Your task to perform on an android device: change notifications settings Image 0: 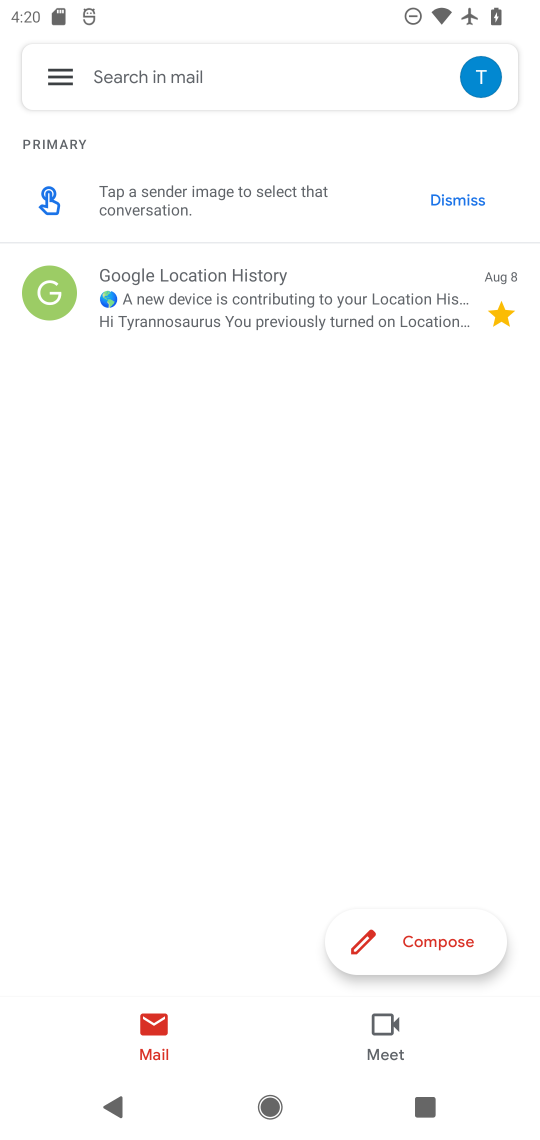
Step 0: press home button
Your task to perform on an android device: change notifications settings Image 1: 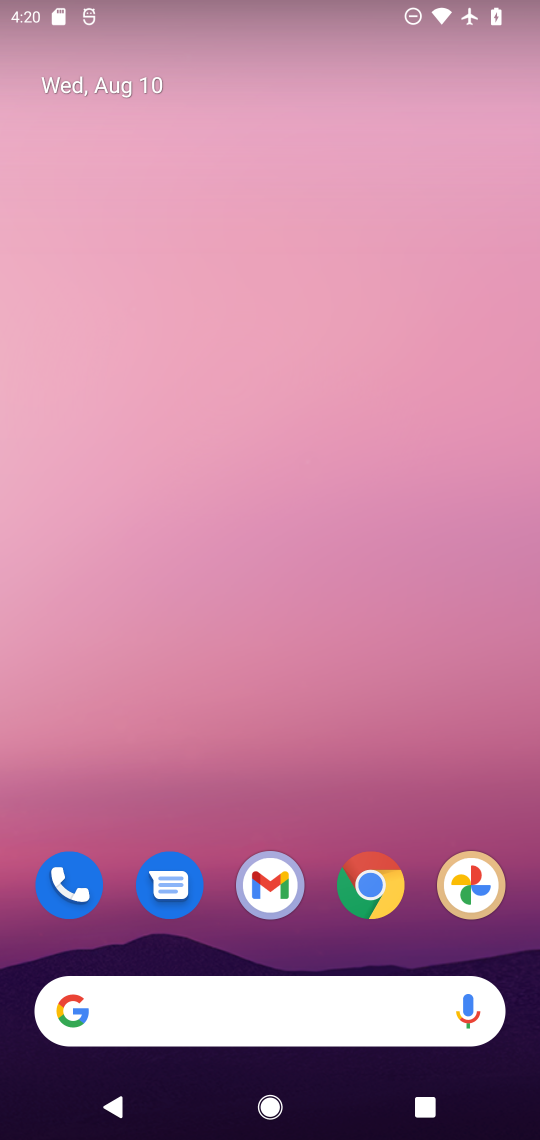
Step 1: drag from (314, 950) to (242, 225)
Your task to perform on an android device: change notifications settings Image 2: 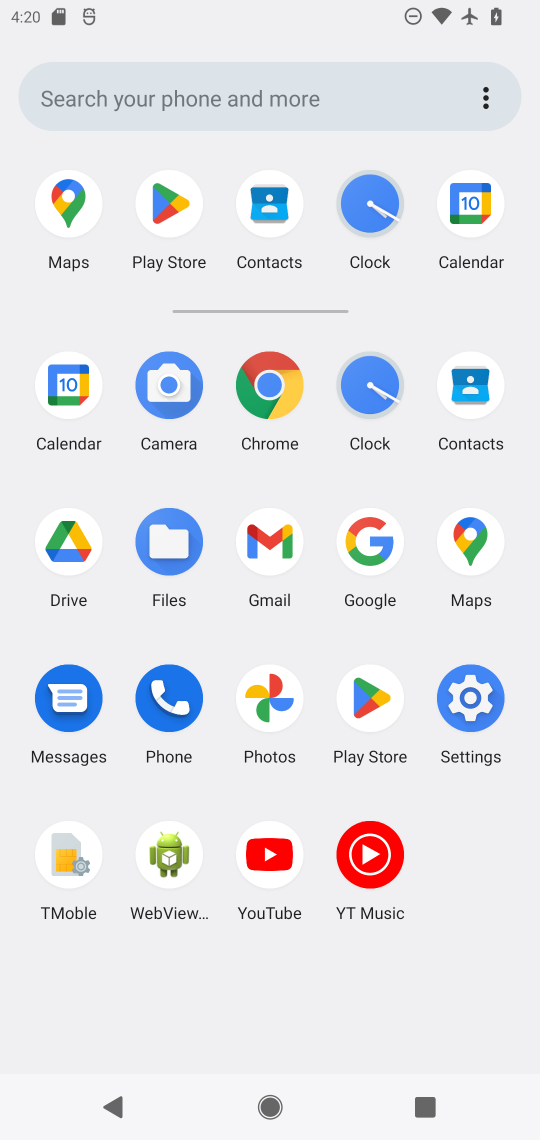
Step 2: click (471, 697)
Your task to perform on an android device: change notifications settings Image 3: 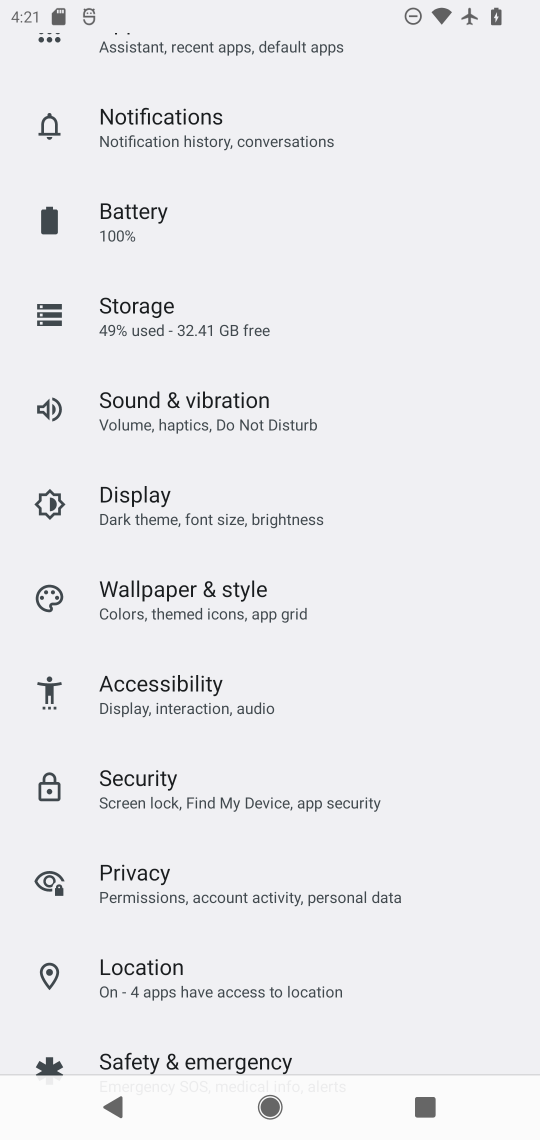
Step 3: click (158, 113)
Your task to perform on an android device: change notifications settings Image 4: 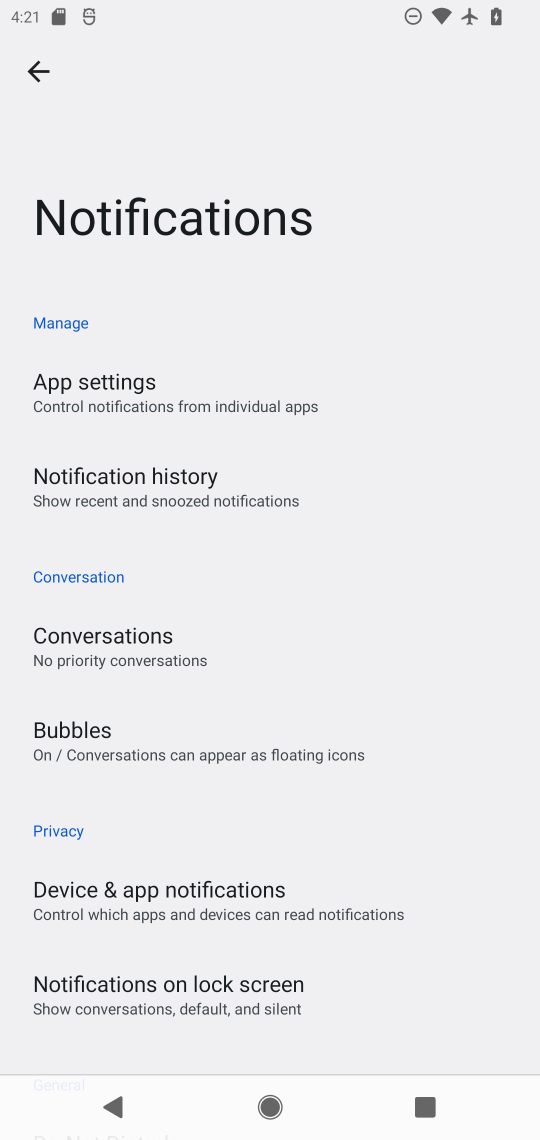
Step 4: click (117, 375)
Your task to perform on an android device: change notifications settings Image 5: 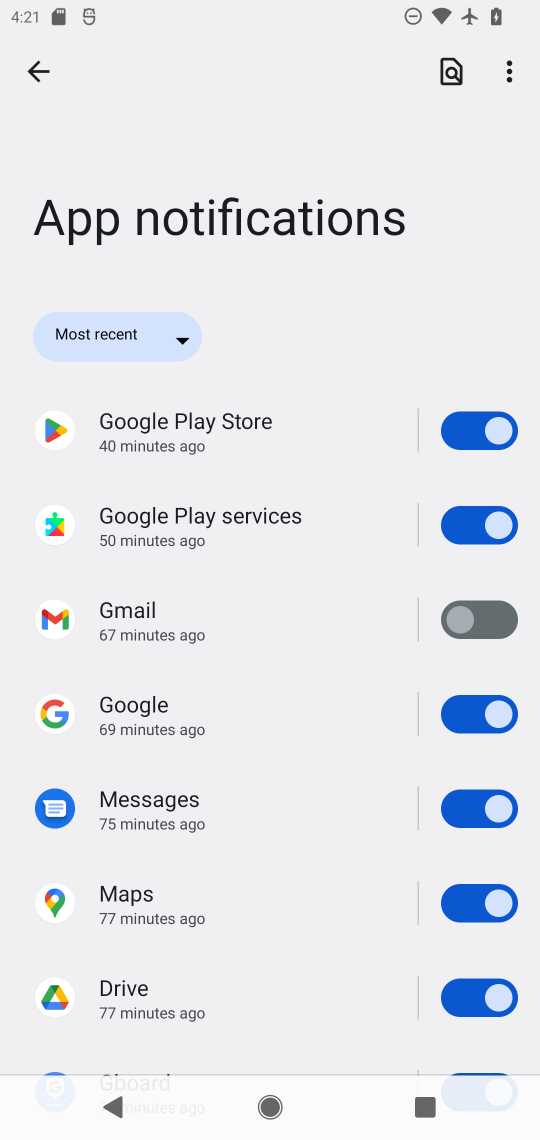
Step 5: click (187, 342)
Your task to perform on an android device: change notifications settings Image 6: 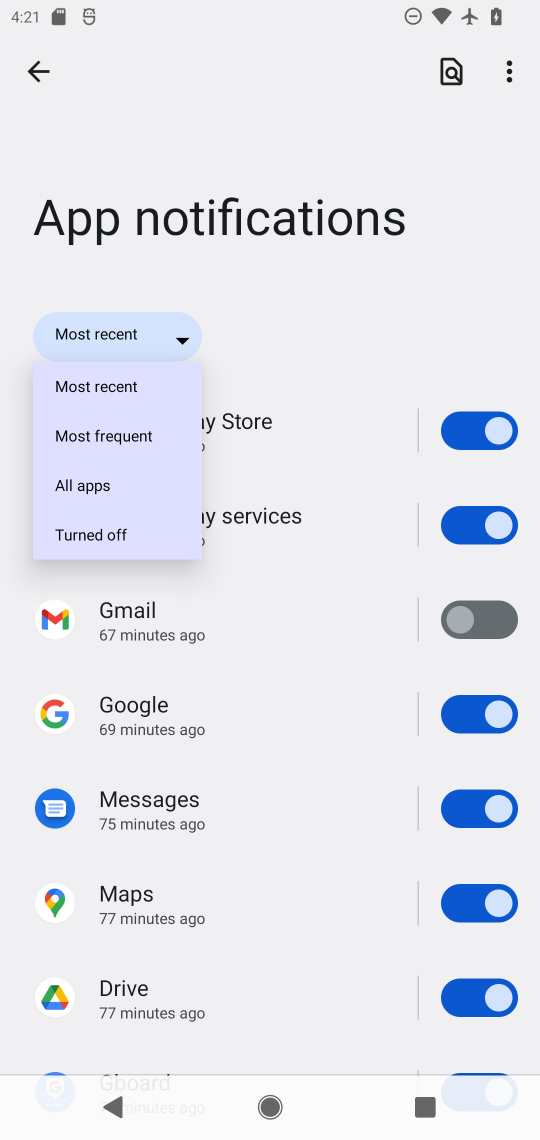
Step 6: click (103, 527)
Your task to perform on an android device: change notifications settings Image 7: 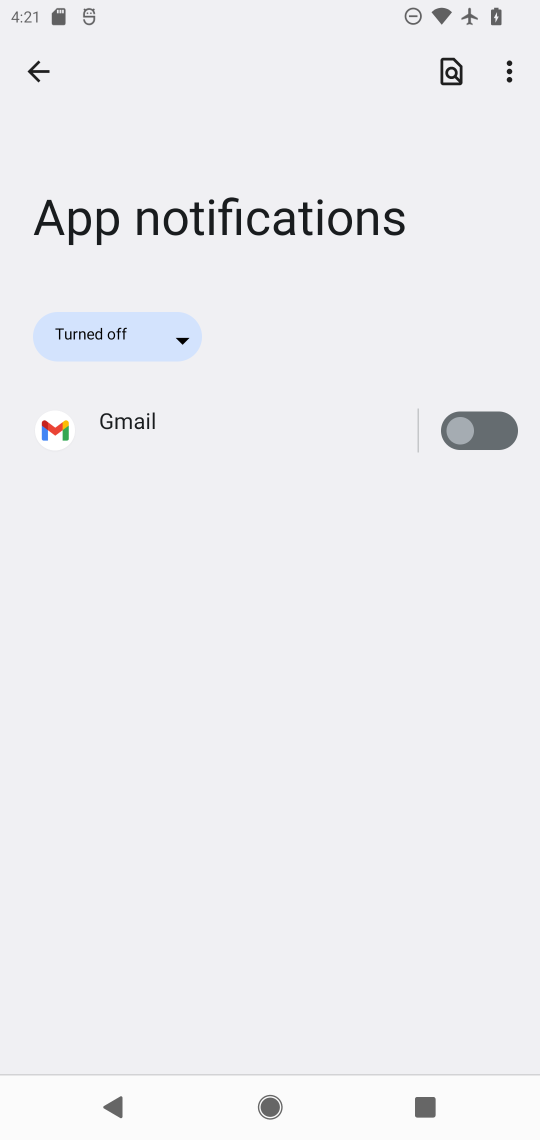
Step 7: task complete